Your task to perform on an android device: Open Google Chrome and click the shortcut for Amazon.com Image 0: 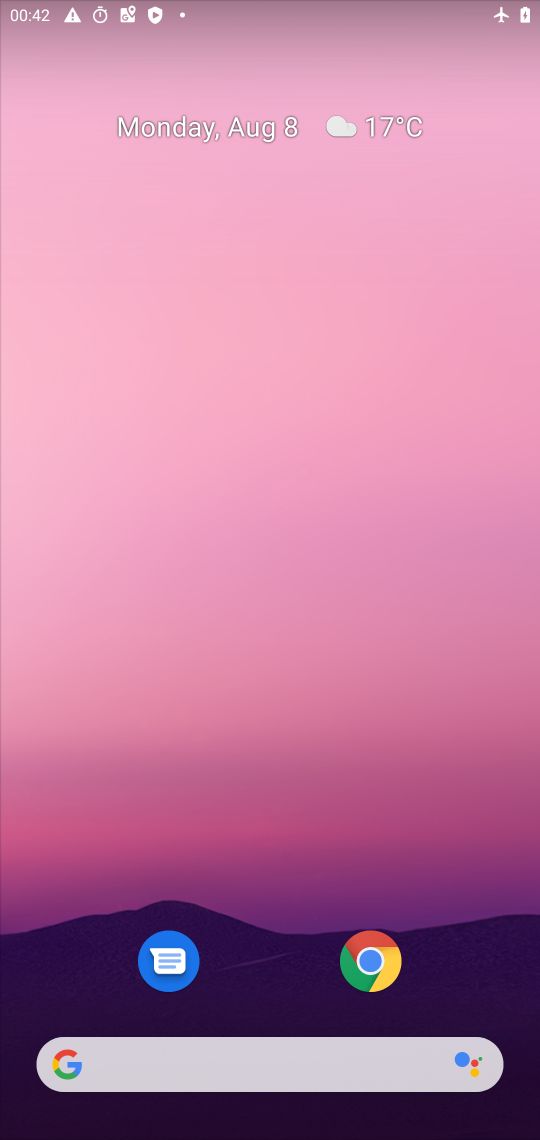
Step 0: drag from (368, 1052) to (339, 0)
Your task to perform on an android device: Open Google Chrome and click the shortcut for Amazon.com Image 1: 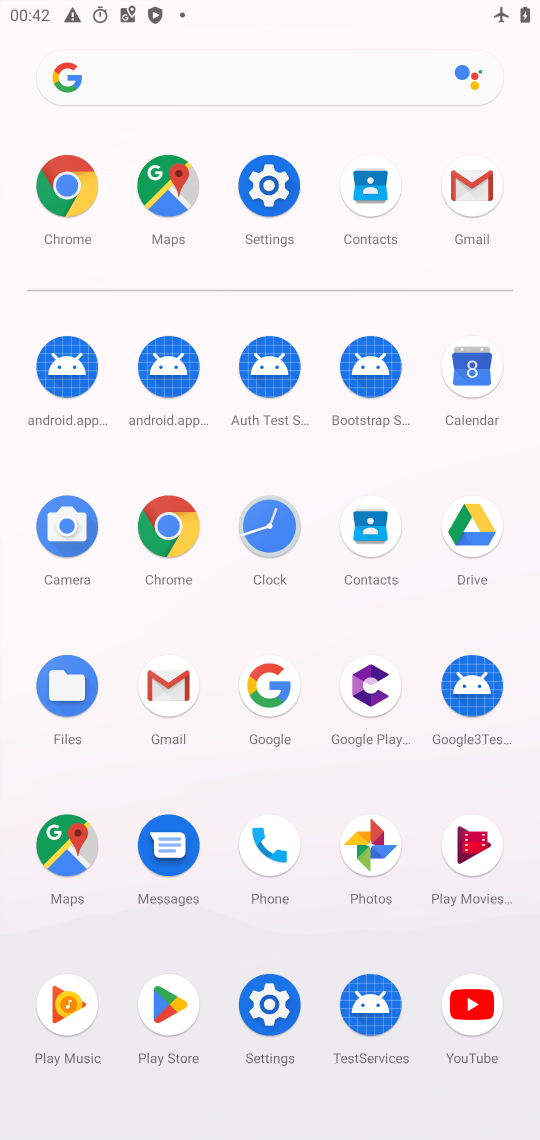
Step 1: click (161, 531)
Your task to perform on an android device: Open Google Chrome and click the shortcut for Amazon.com Image 2: 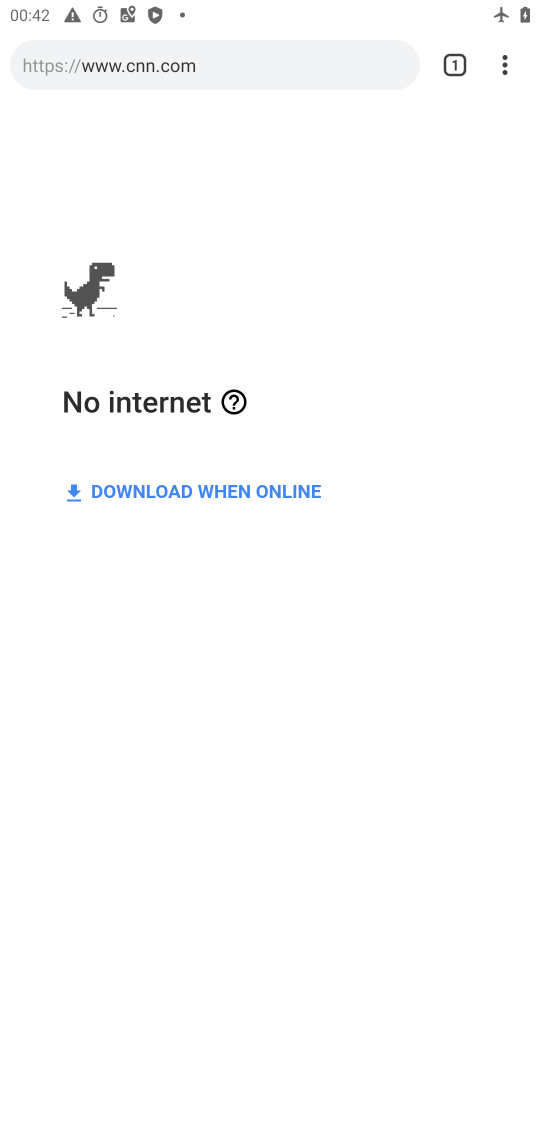
Step 2: click (505, 52)
Your task to perform on an android device: Open Google Chrome and click the shortcut for Amazon.com Image 3: 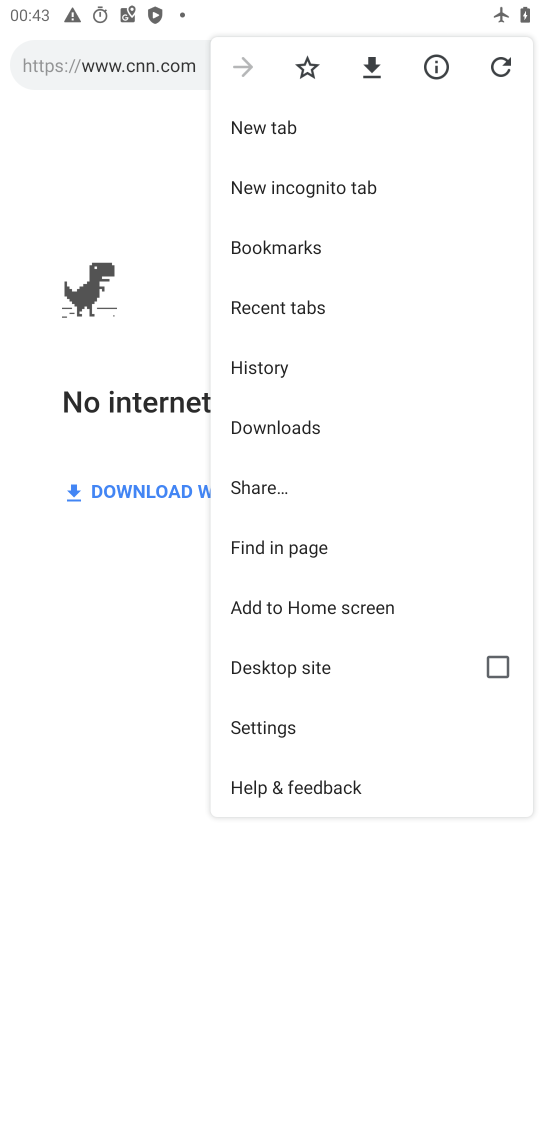
Step 3: click (76, 696)
Your task to perform on an android device: Open Google Chrome and click the shortcut for Amazon.com Image 4: 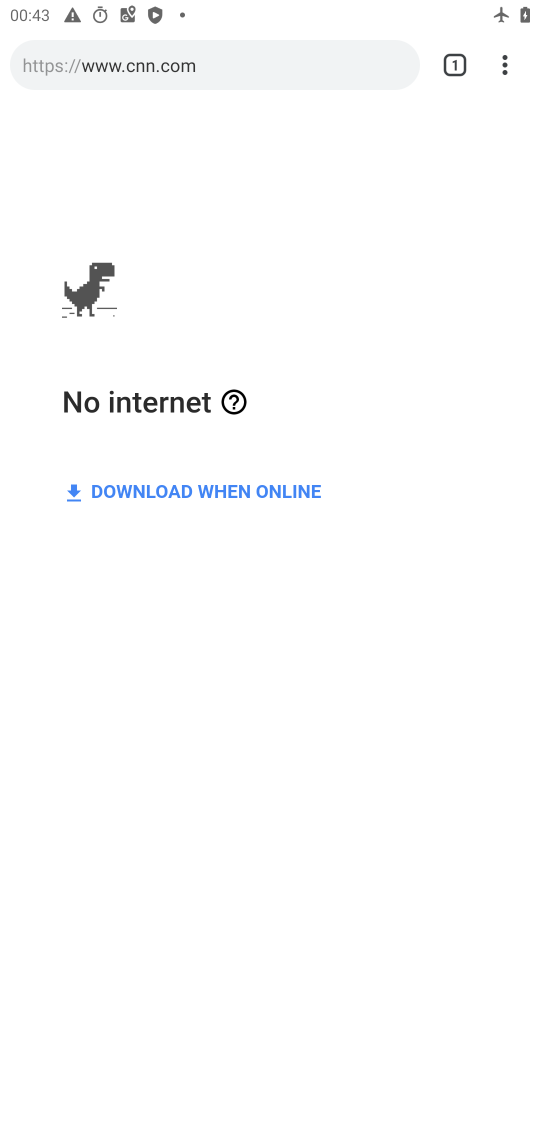
Step 4: click (503, 68)
Your task to perform on an android device: Open Google Chrome and click the shortcut for Amazon.com Image 5: 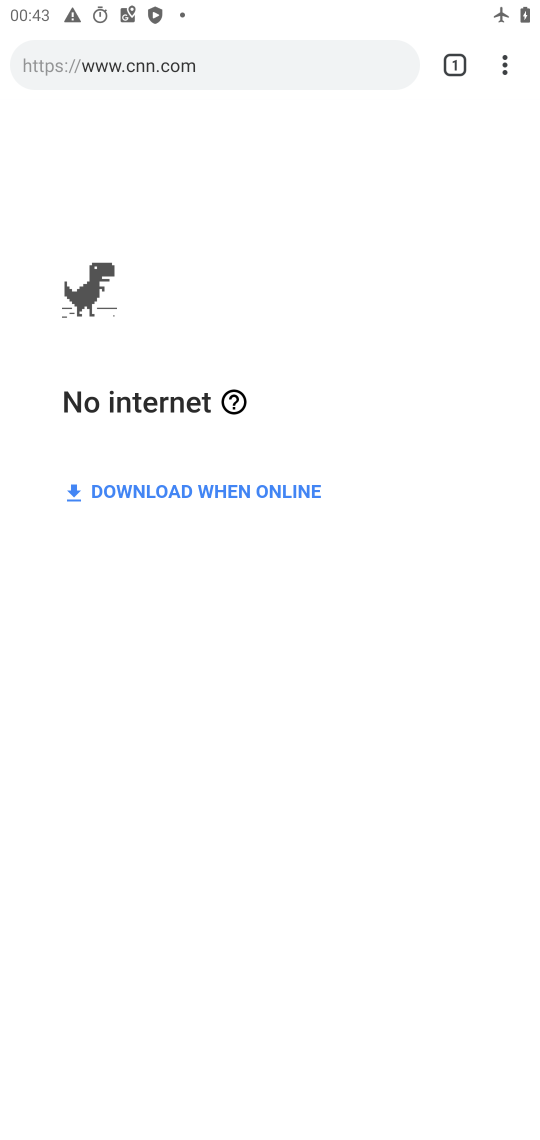
Step 5: drag from (503, 61) to (385, 112)
Your task to perform on an android device: Open Google Chrome and click the shortcut for Amazon.com Image 6: 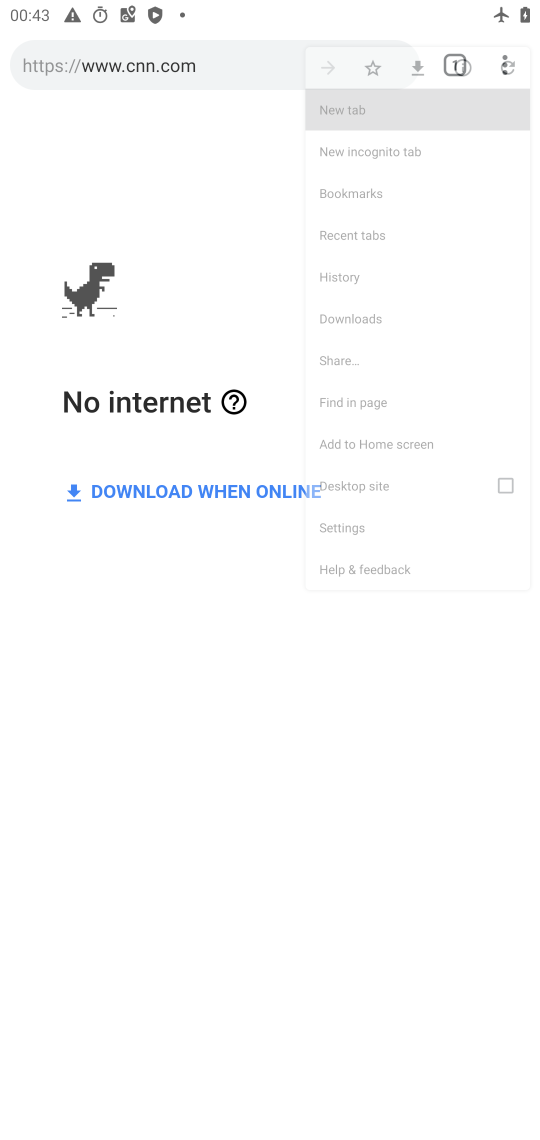
Step 6: click (385, 112)
Your task to perform on an android device: Open Google Chrome and click the shortcut for Amazon.com Image 7: 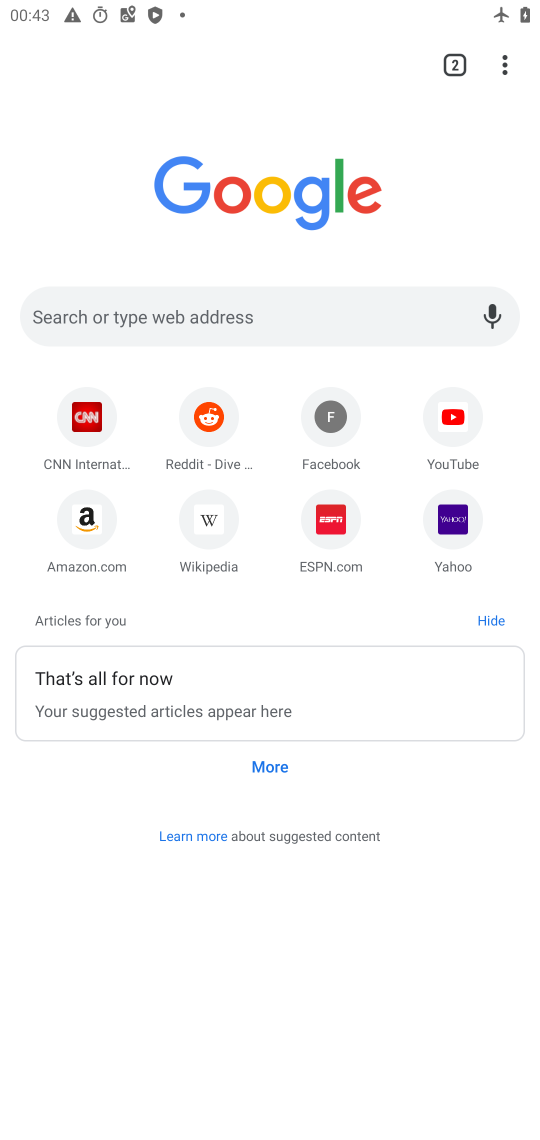
Step 7: click (91, 526)
Your task to perform on an android device: Open Google Chrome and click the shortcut for Amazon.com Image 8: 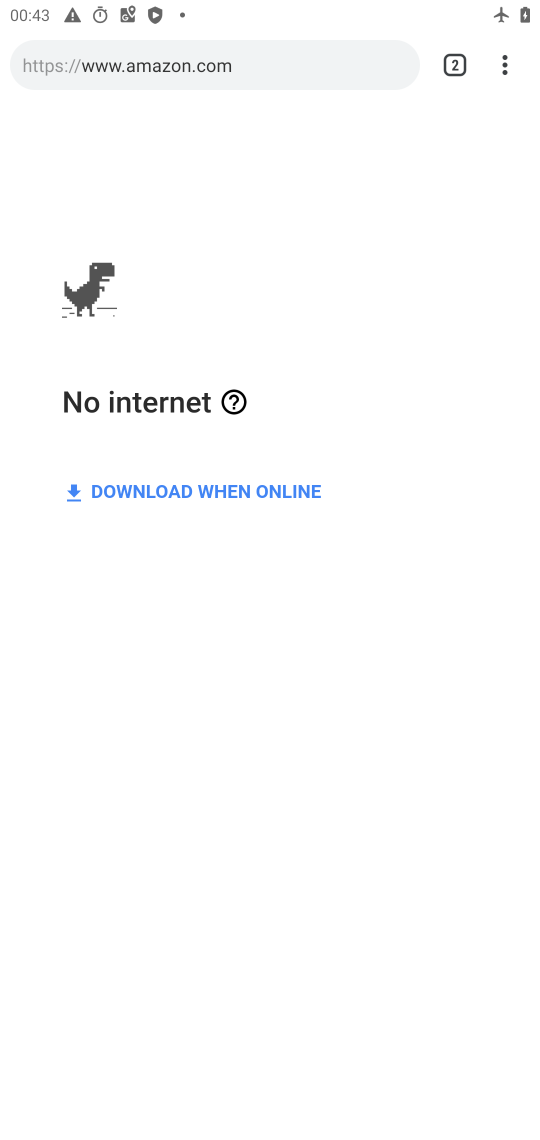
Step 8: task complete